Your task to perform on an android device: Go to Android settings Image 0: 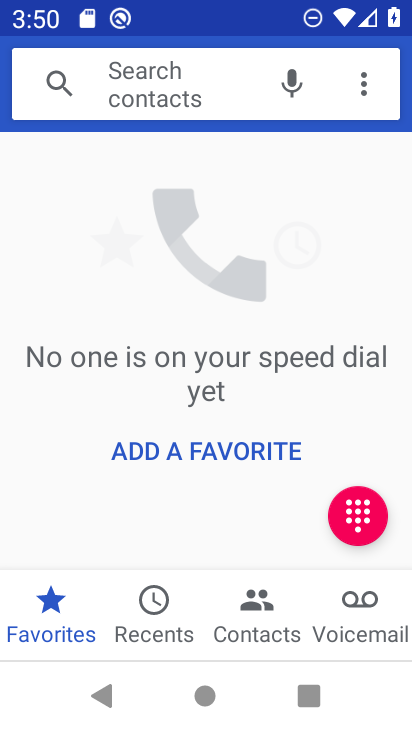
Step 0: press back button
Your task to perform on an android device: Go to Android settings Image 1: 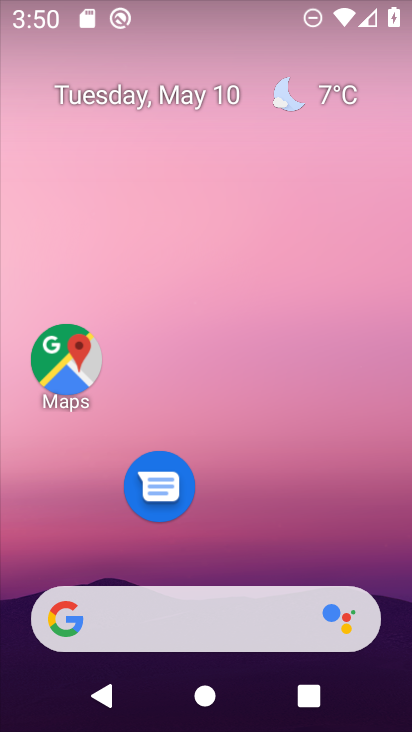
Step 1: drag from (296, 533) to (223, 14)
Your task to perform on an android device: Go to Android settings Image 2: 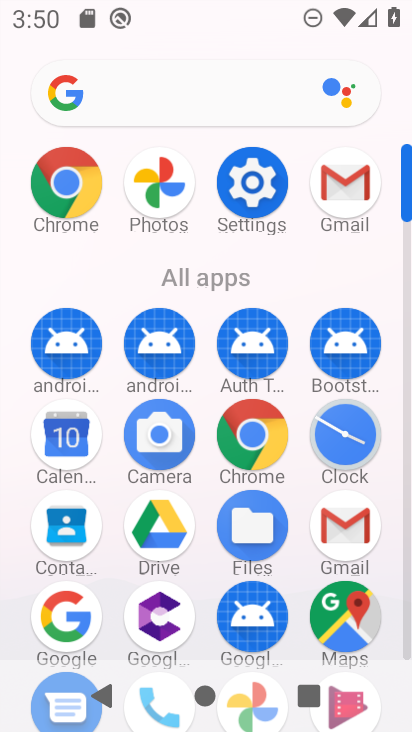
Step 2: drag from (20, 562) to (13, 251)
Your task to perform on an android device: Go to Android settings Image 3: 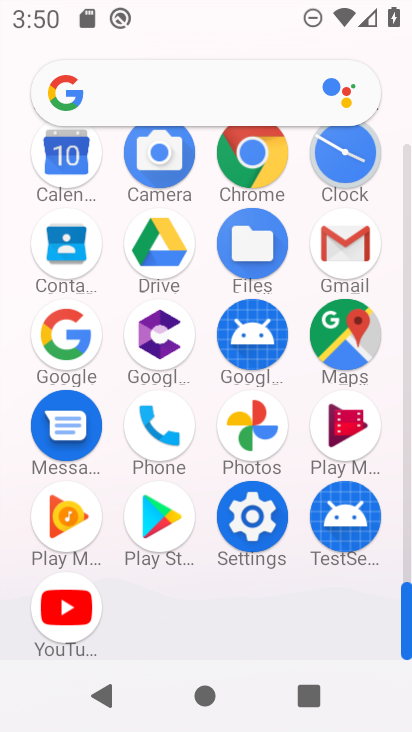
Step 3: click (251, 512)
Your task to perform on an android device: Go to Android settings Image 4: 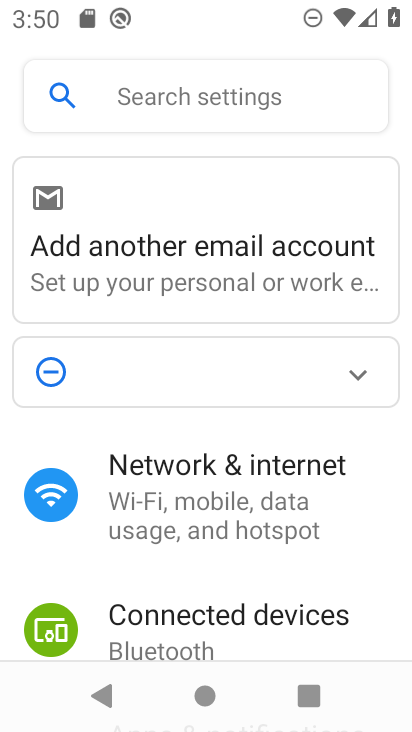
Step 4: task complete